Your task to perform on an android device: Open Chrome and go to settings Image 0: 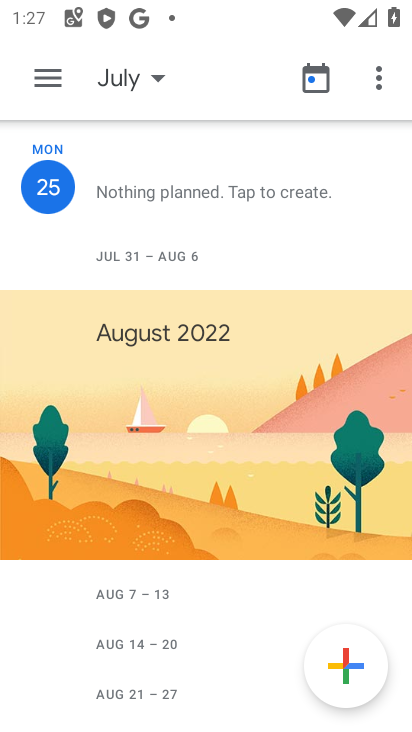
Step 0: press back button
Your task to perform on an android device: Open Chrome and go to settings Image 1: 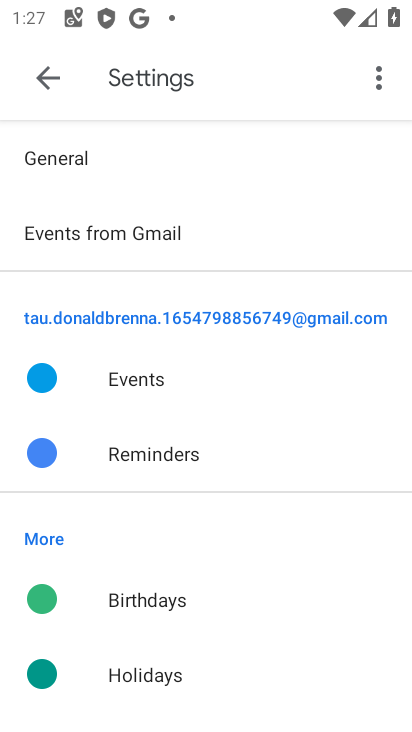
Step 1: press back button
Your task to perform on an android device: Open Chrome and go to settings Image 2: 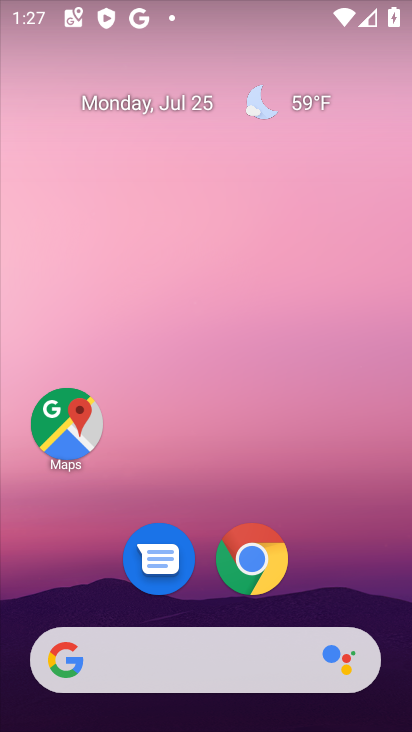
Step 2: click (274, 578)
Your task to perform on an android device: Open Chrome and go to settings Image 3: 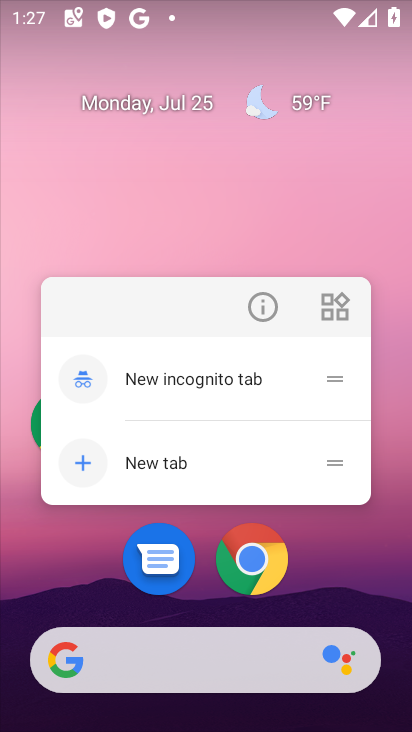
Step 3: click (258, 554)
Your task to perform on an android device: Open Chrome and go to settings Image 4: 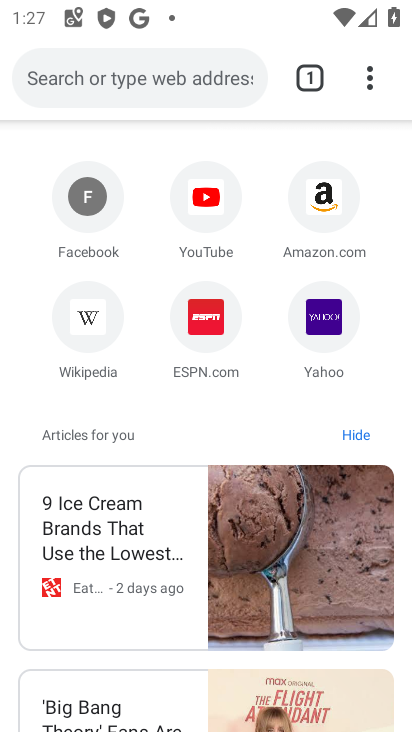
Step 4: task complete